Your task to perform on an android device: turn off location Image 0: 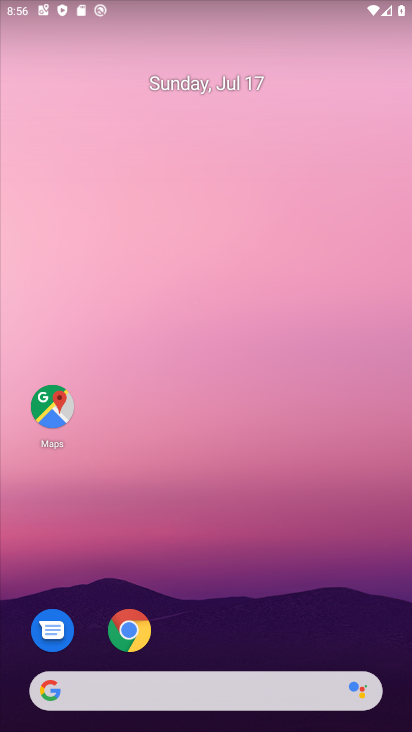
Step 0: drag from (345, 616) to (382, 109)
Your task to perform on an android device: turn off location Image 1: 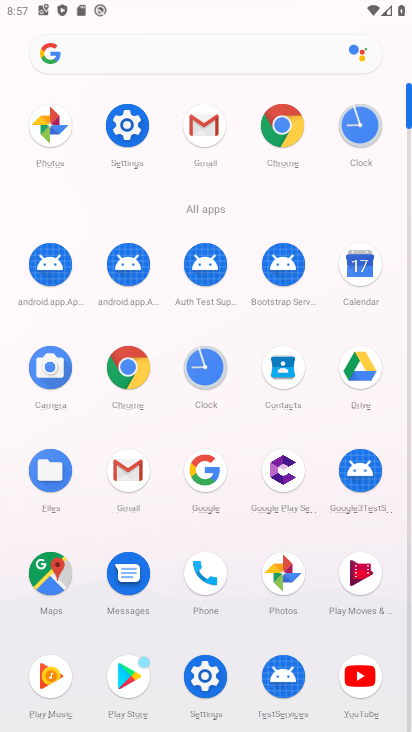
Step 1: click (122, 128)
Your task to perform on an android device: turn off location Image 2: 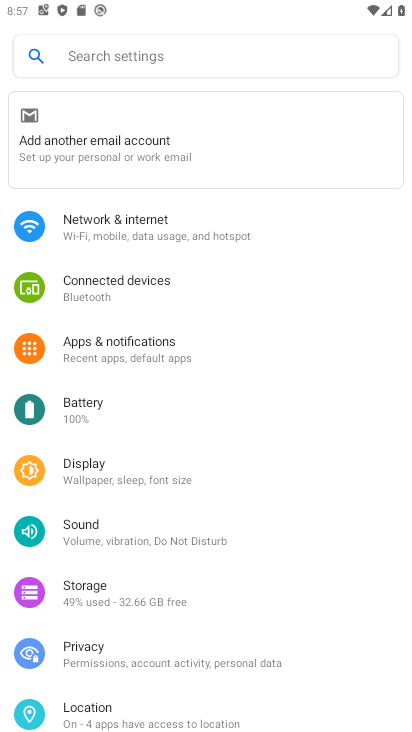
Step 2: drag from (339, 509) to (353, 416)
Your task to perform on an android device: turn off location Image 3: 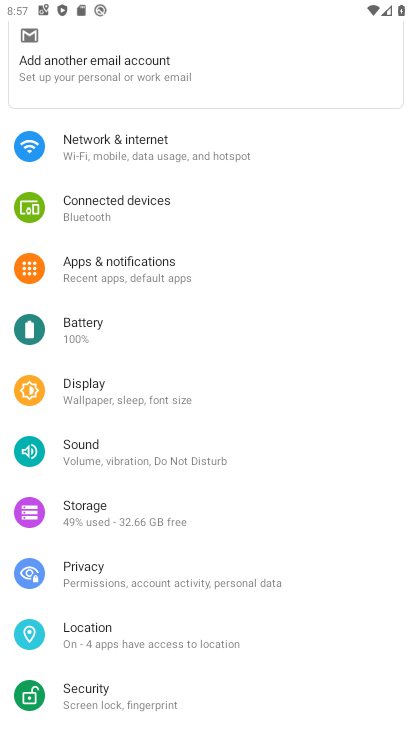
Step 3: drag from (344, 527) to (352, 431)
Your task to perform on an android device: turn off location Image 4: 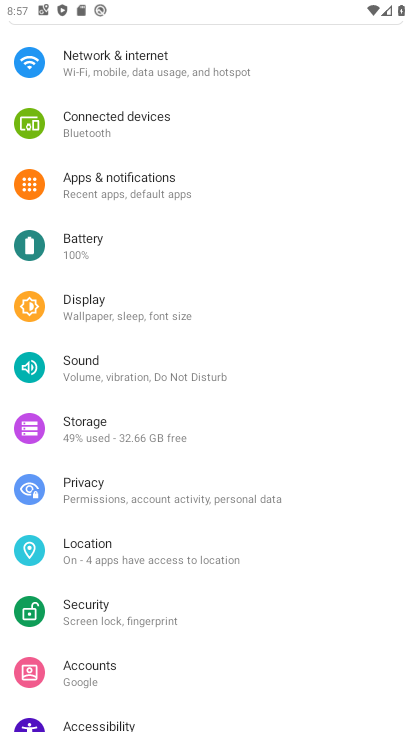
Step 4: drag from (357, 529) to (362, 438)
Your task to perform on an android device: turn off location Image 5: 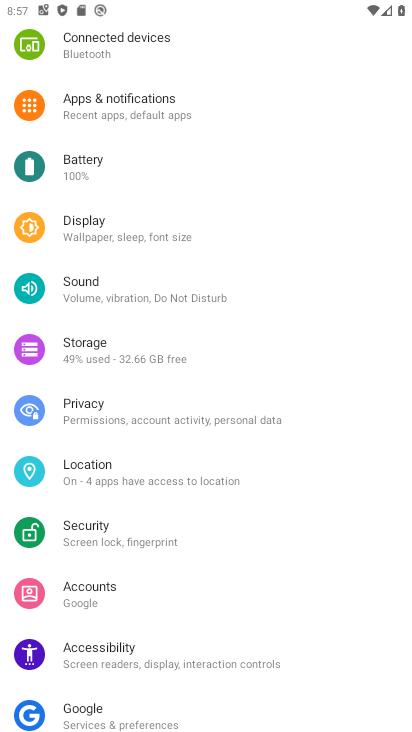
Step 5: drag from (351, 548) to (354, 445)
Your task to perform on an android device: turn off location Image 6: 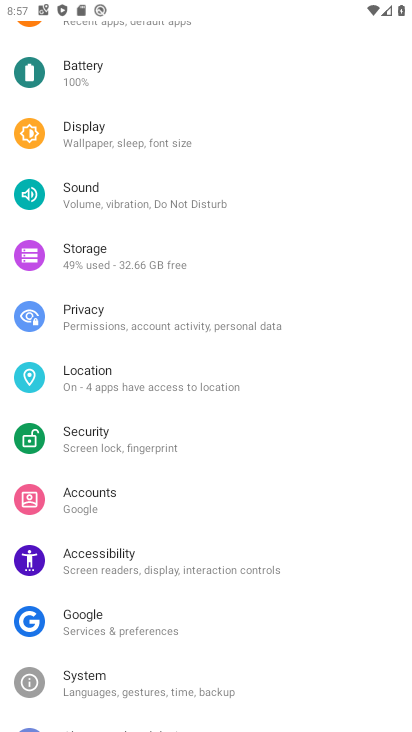
Step 6: drag from (341, 559) to (341, 459)
Your task to perform on an android device: turn off location Image 7: 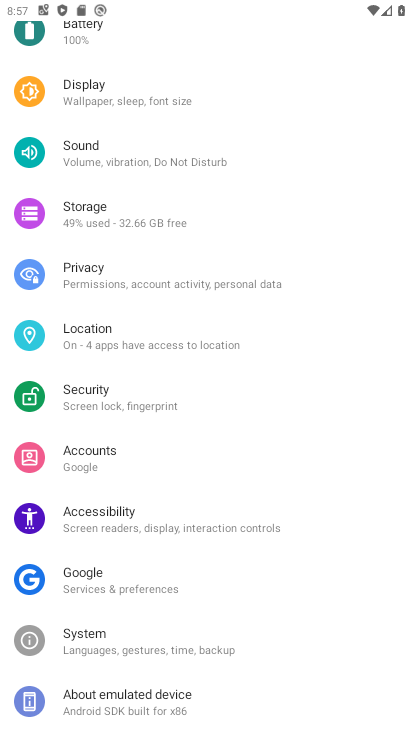
Step 7: drag from (324, 579) to (324, 482)
Your task to perform on an android device: turn off location Image 8: 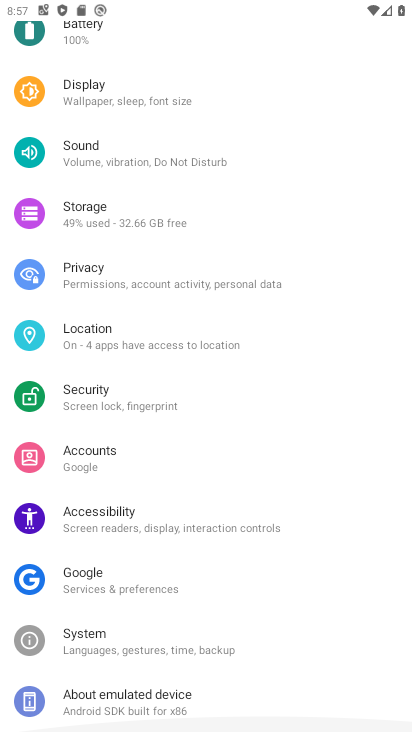
Step 8: drag from (328, 399) to (328, 482)
Your task to perform on an android device: turn off location Image 9: 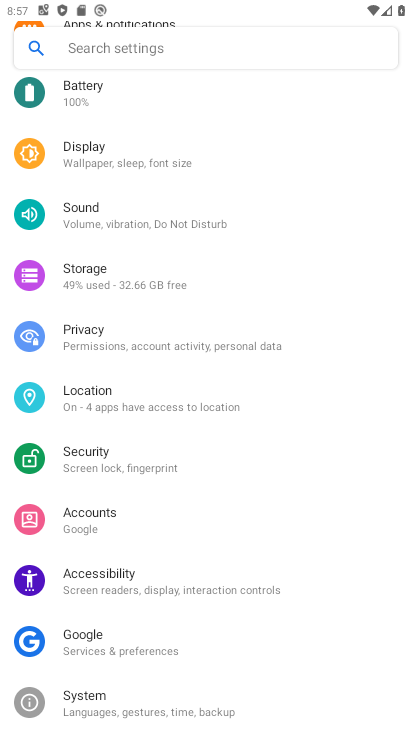
Step 9: drag from (337, 378) to (339, 536)
Your task to perform on an android device: turn off location Image 10: 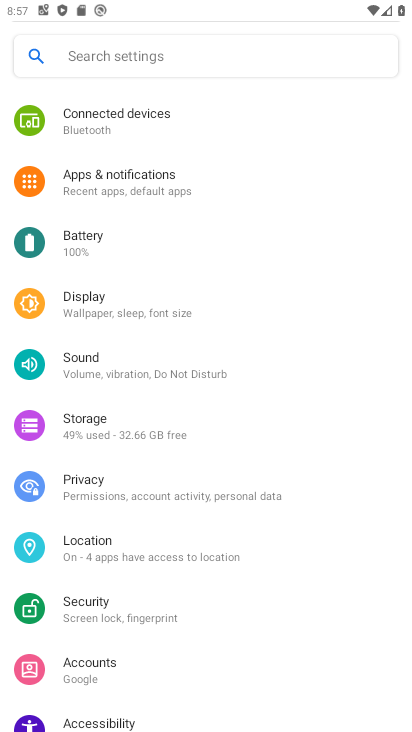
Step 10: click (217, 557)
Your task to perform on an android device: turn off location Image 11: 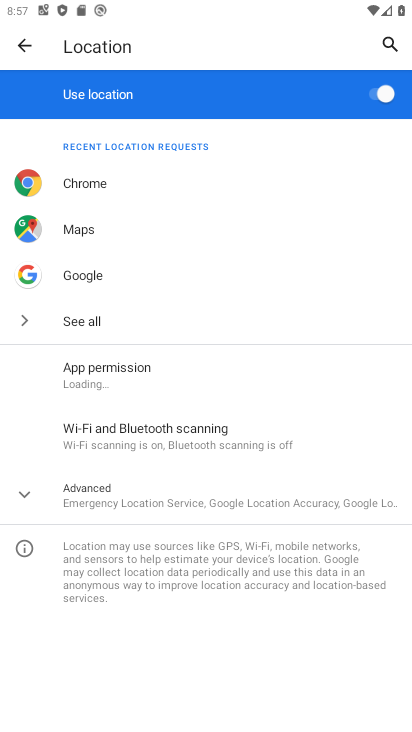
Step 11: click (390, 92)
Your task to perform on an android device: turn off location Image 12: 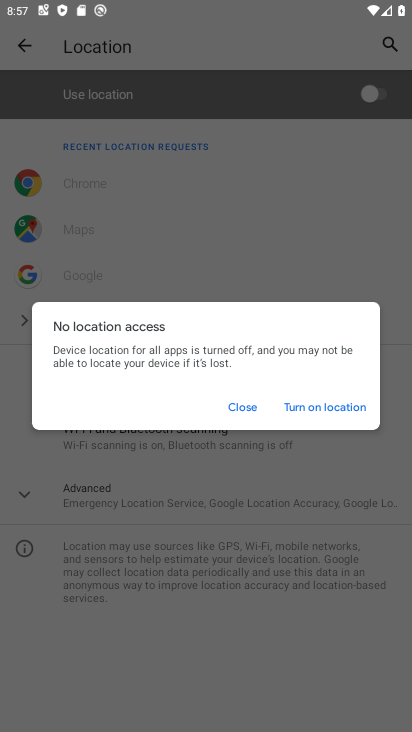
Step 12: task complete